Your task to perform on an android device: change keyboard looks Image 0: 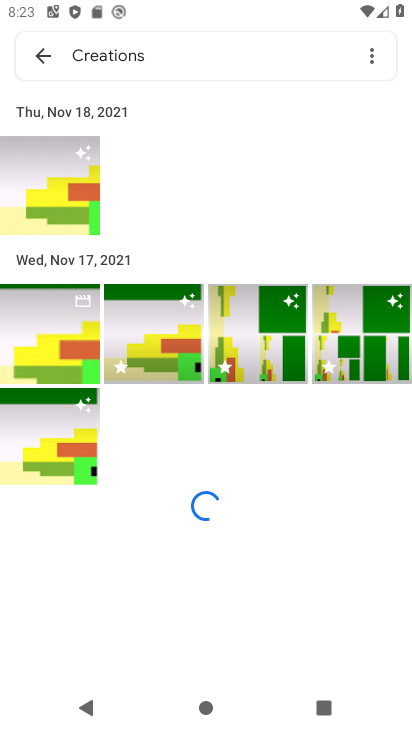
Step 0: press home button
Your task to perform on an android device: change keyboard looks Image 1: 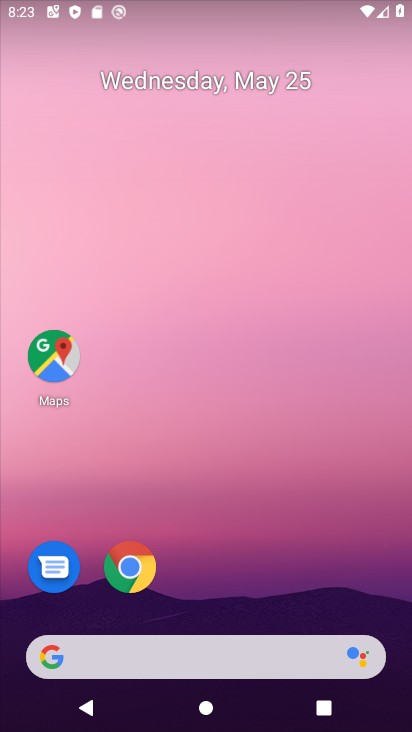
Step 1: drag from (250, 536) to (273, 398)
Your task to perform on an android device: change keyboard looks Image 2: 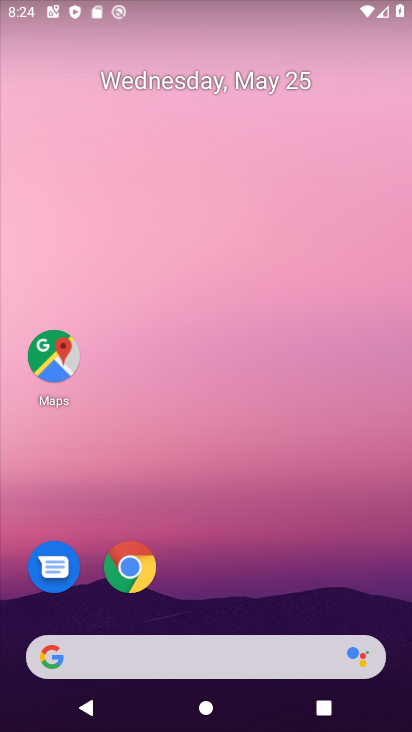
Step 2: drag from (242, 419) to (273, 44)
Your task to perform on an android device: change keyboard looks Image 3: 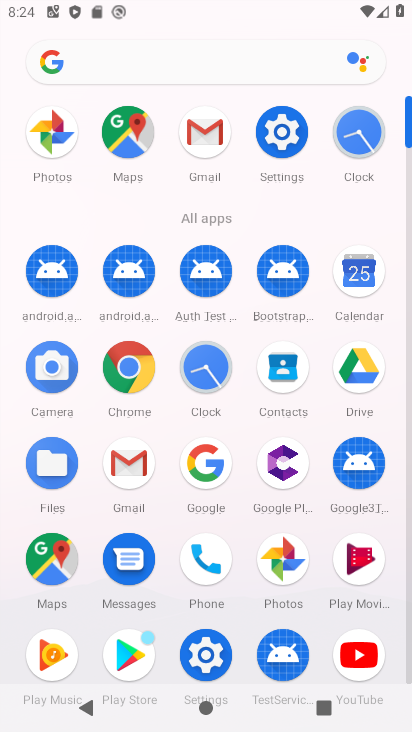
Step 3: click (286, 128)
Your task to perform on an android device: change keyboard looks Image 4: 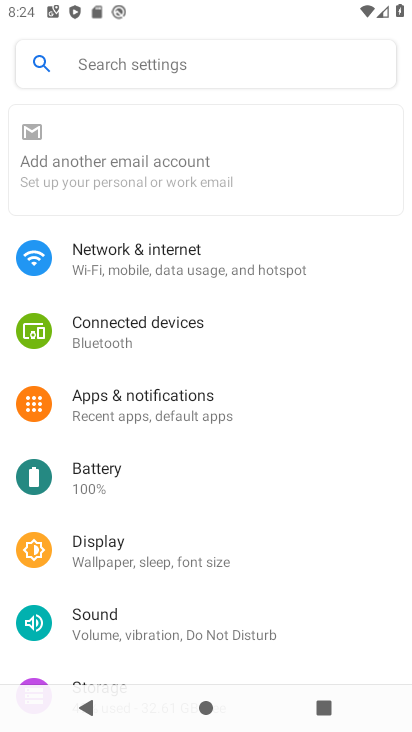
Step 4: drag from (264, 571) to (257, 33)
Your task to perform on an android device: change keyboard looks Image 5: 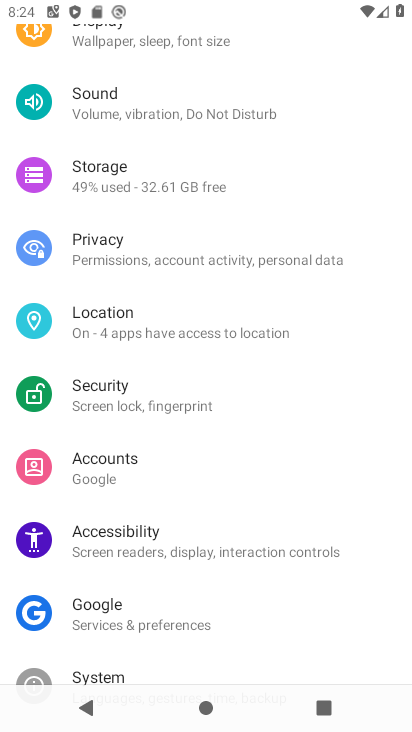
Step 5: drag from (241, 543) to (224, 150)
Your task to perform on an android device: change keyboard looks Image 6: 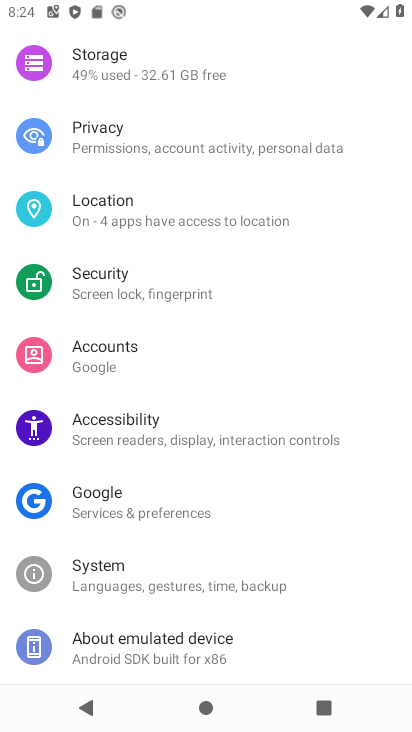
Step 6: click (163, 578)
Your task to perform on an android device: change keyboard looks Image 7: 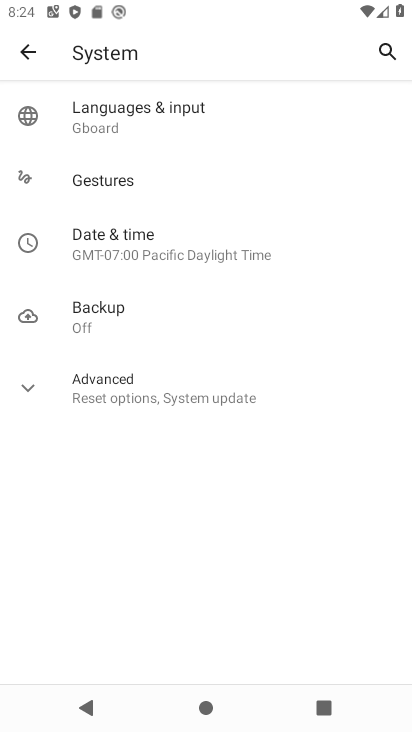
Step 7: click (178, 115)
Your task to perform on an android device: change keyboard looks Image 8: 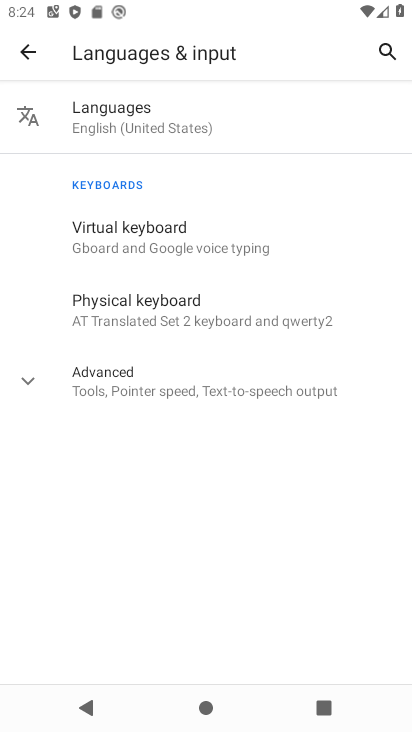
Step 8: click (175, 227)
Your task to perform on an android device: change keyboard looks Image 9: 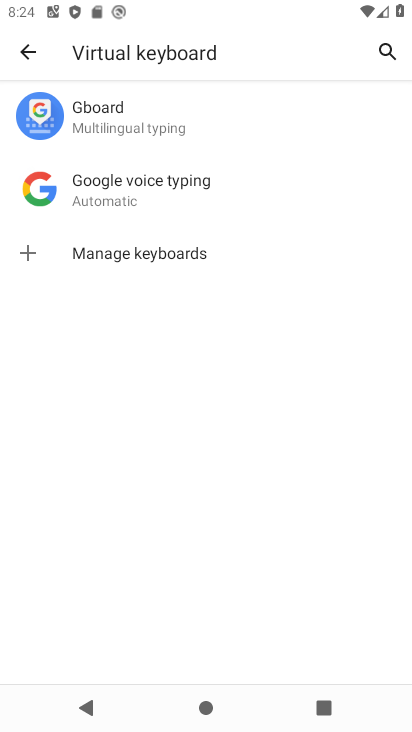
Step 9: click (148, 115)
Your task to perform on an android device: change keyboard looks Image 10: 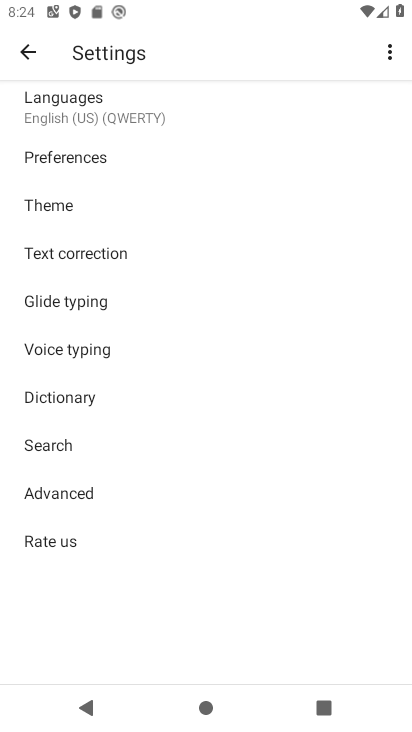
Step 10: click (68, 199)
Your task to perform on an android device: change keyboard looks Image 11: 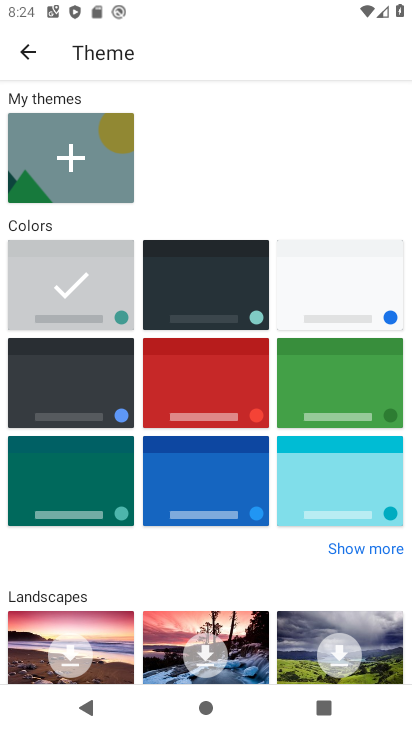
Step 11: click (224, 363)
Your task to perform on an android device: change keyboard looks Image 12: 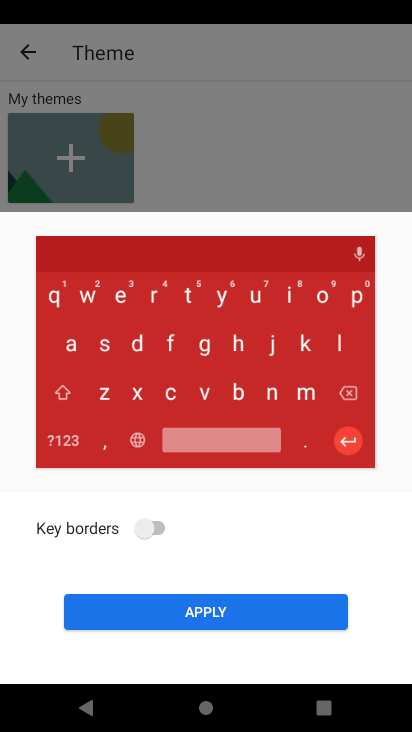
Step 12: click (153, 527)
Your task to perform on an android device: change keyboard looks Image 13: 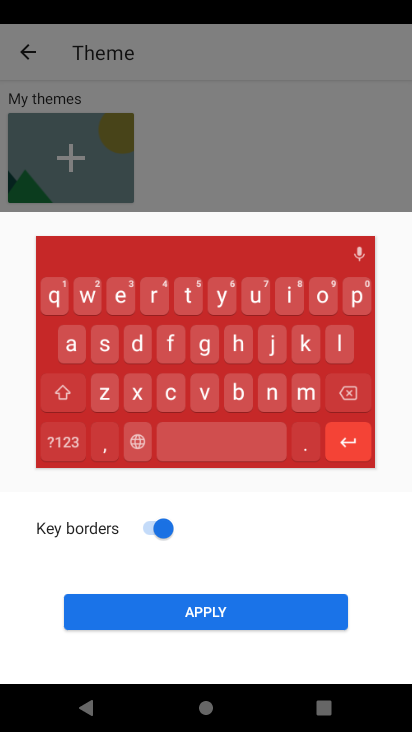
Step 13: click (210, 611)
Your task to perform on an android device: change keyboard looks Image 14: 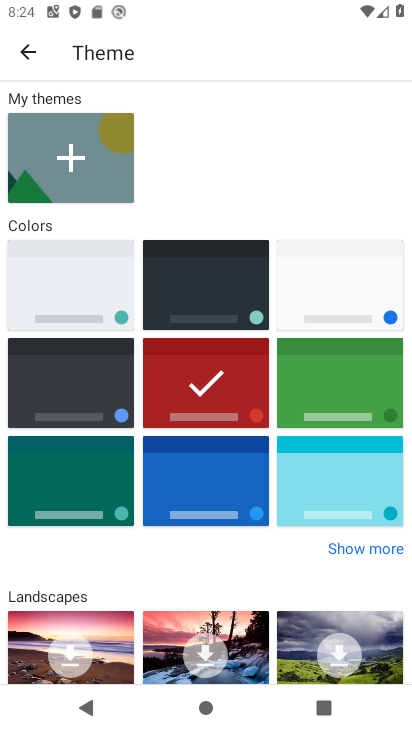
Step 14: task complete